Your task to perform on an android device: Check out the best rated 4k TV on Best Buy. Image 0: 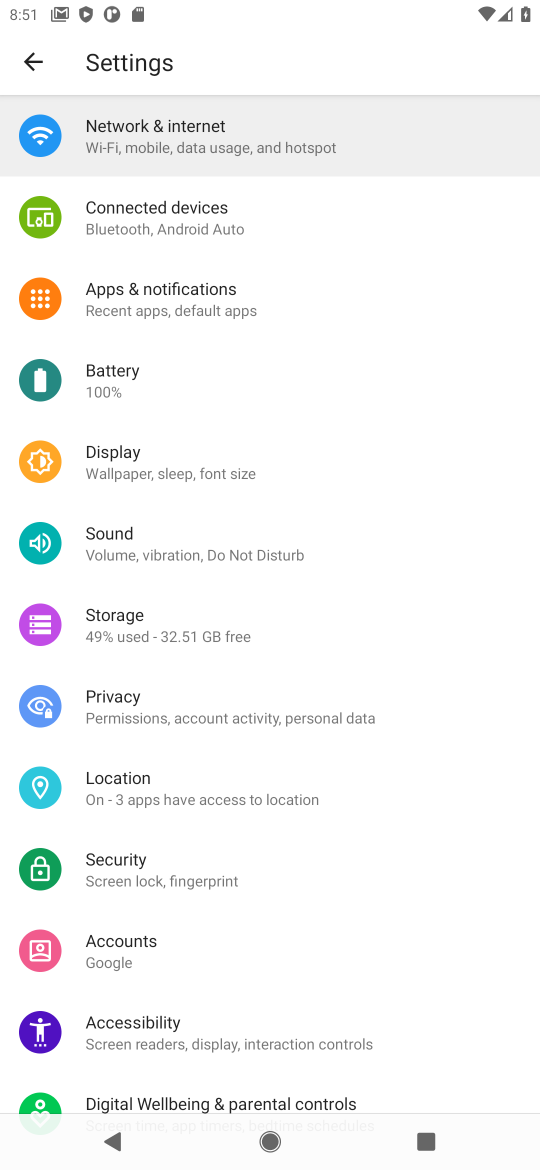
Step 0: press home button
Your task to perform on an android device: Check out the best rated 4k TV on Best Buy. Image 1: 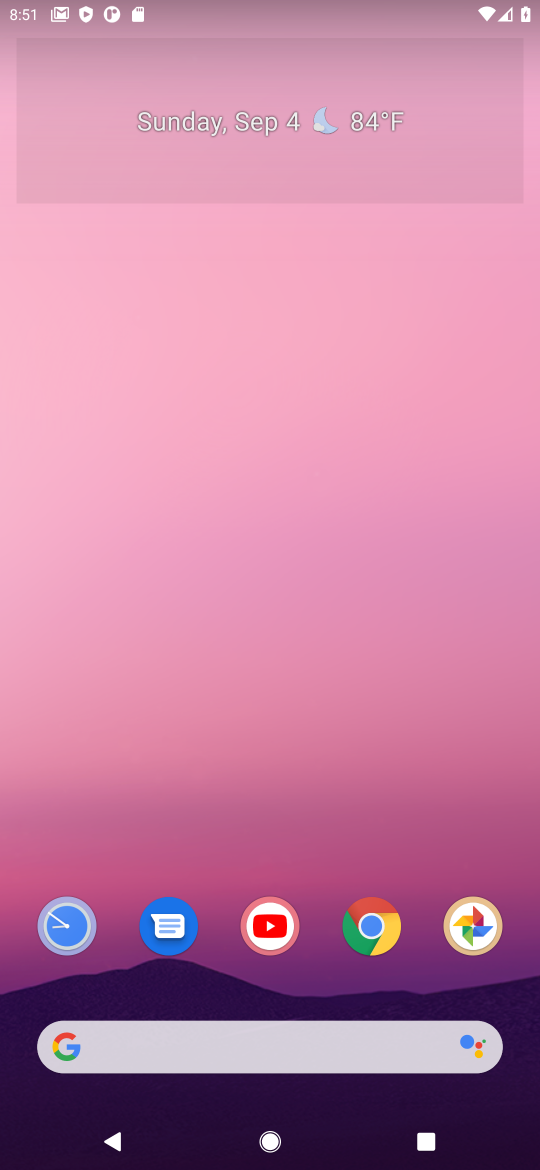
Step 1: click (279, 1041)
Your task to perform on an android device: Check out the best rated 4k TV on Best Buy. Image 2: 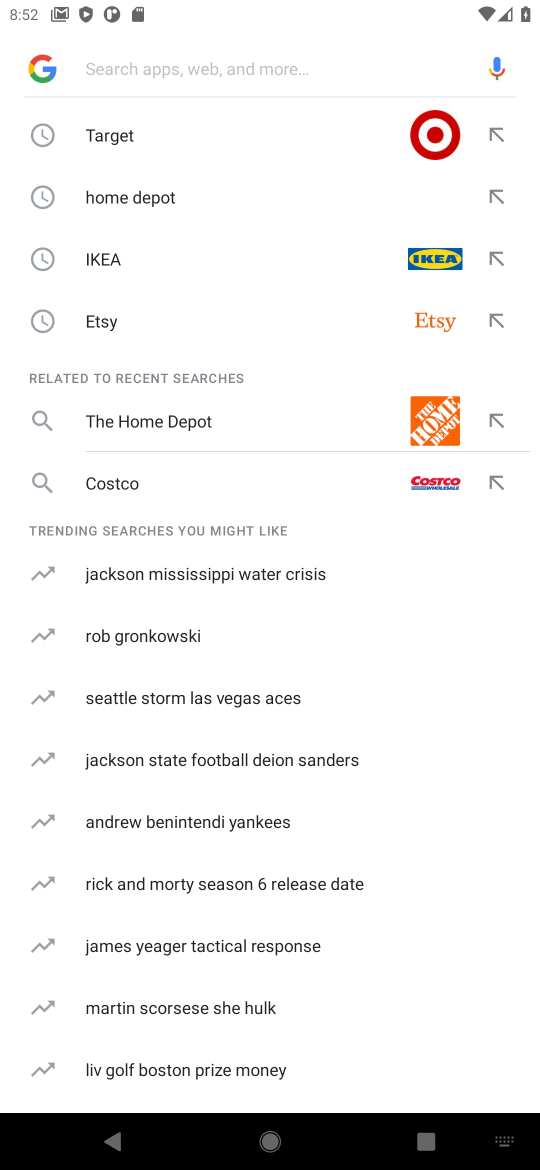
Step 2: type "best buy"
Your task to perform on an android device: Check out the best rated 4k TV on Best Buy. Image 3: 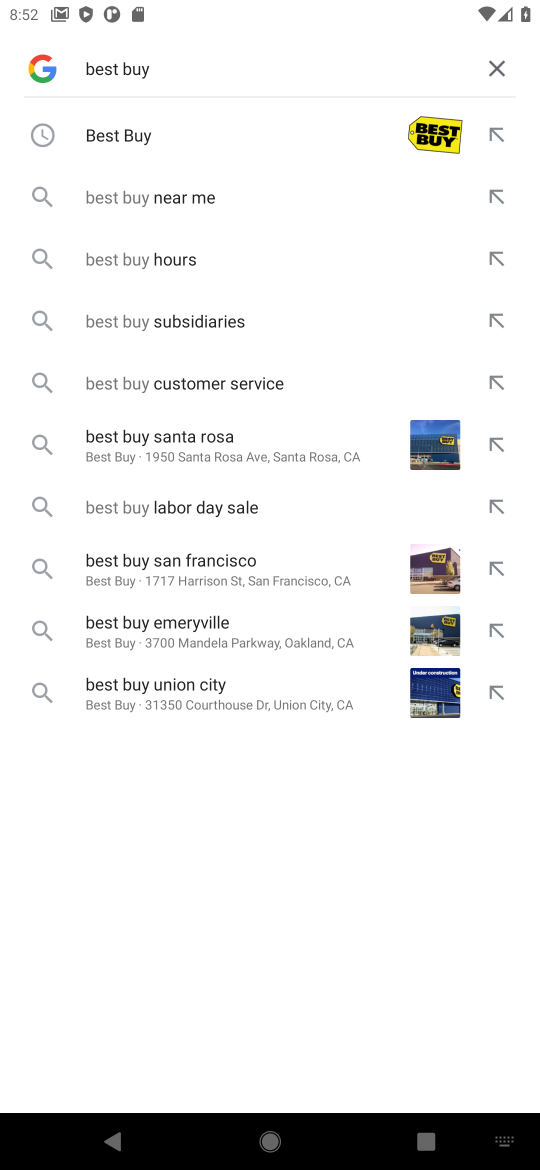
Step 3: click (134, 136)
Your task to perform on an android device: Check out the best rated 4k TV on Best Buy. Image 4: 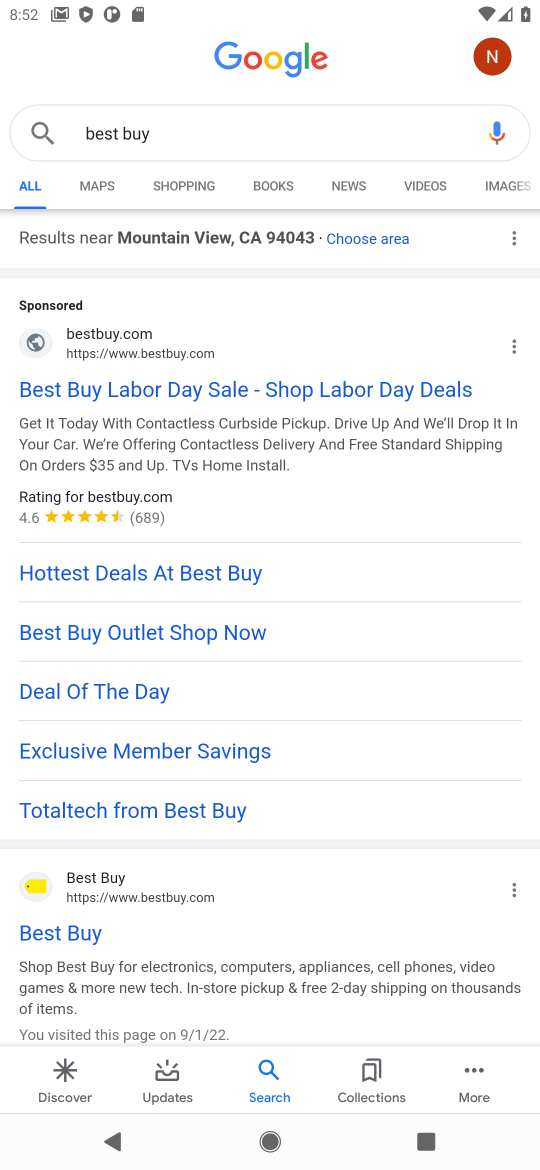
Step 4: click (185, 389)
Your task to perform on an android device: Check out the best rated 4k TV on Best Buy. Image 5: 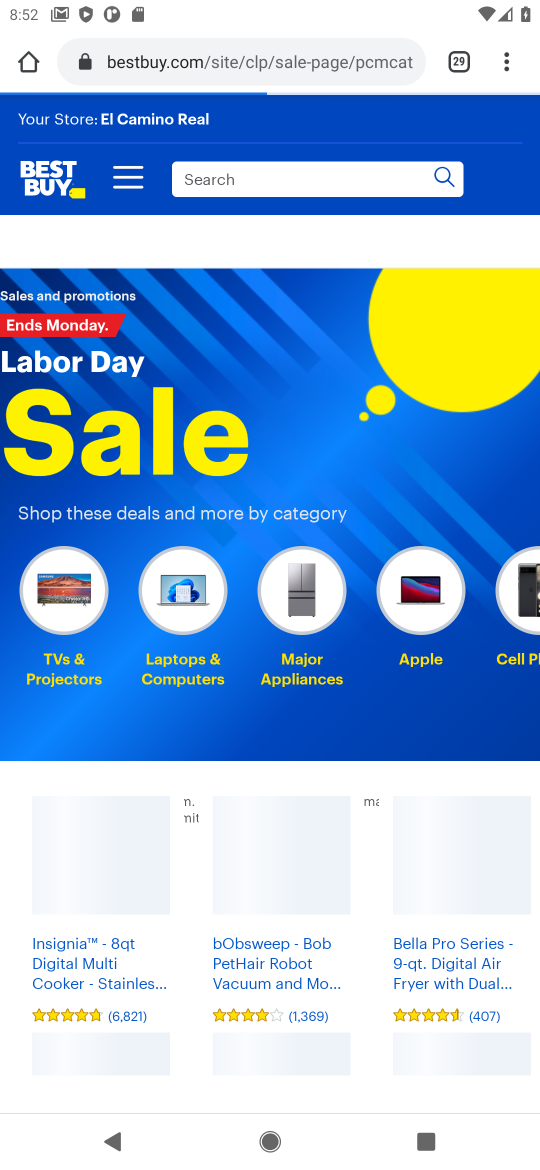
Step 5: click (281, 173)
Your task to perform on an android device: Check out the best rated 4k TV on Best Buy. Image 6: 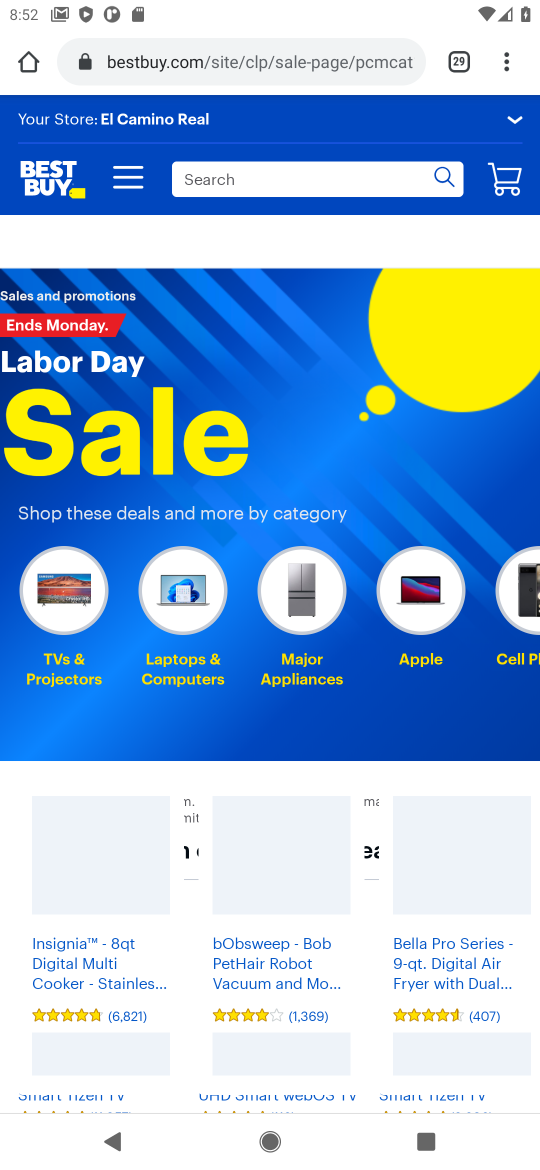
Step 6: click (251, 178)
Your task to perform on an android device: Check out the best rated 4k TV on Best Buy. Image 7: 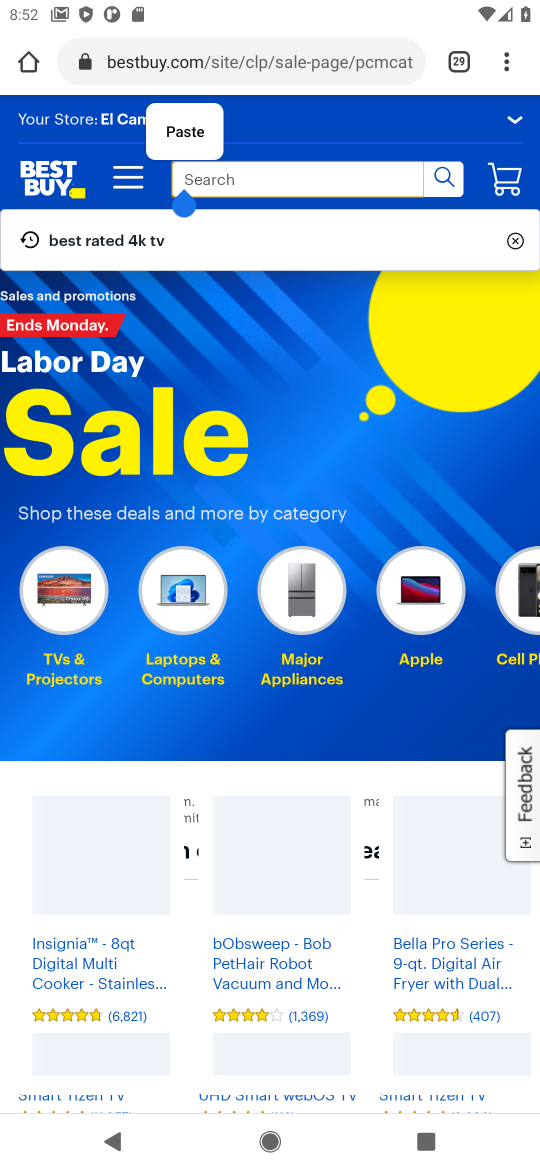
Step 7: type "best rated 4k tv"
Your task to perform on an android device: Check out the best rated 4k TV on Best Buy. Image 8: 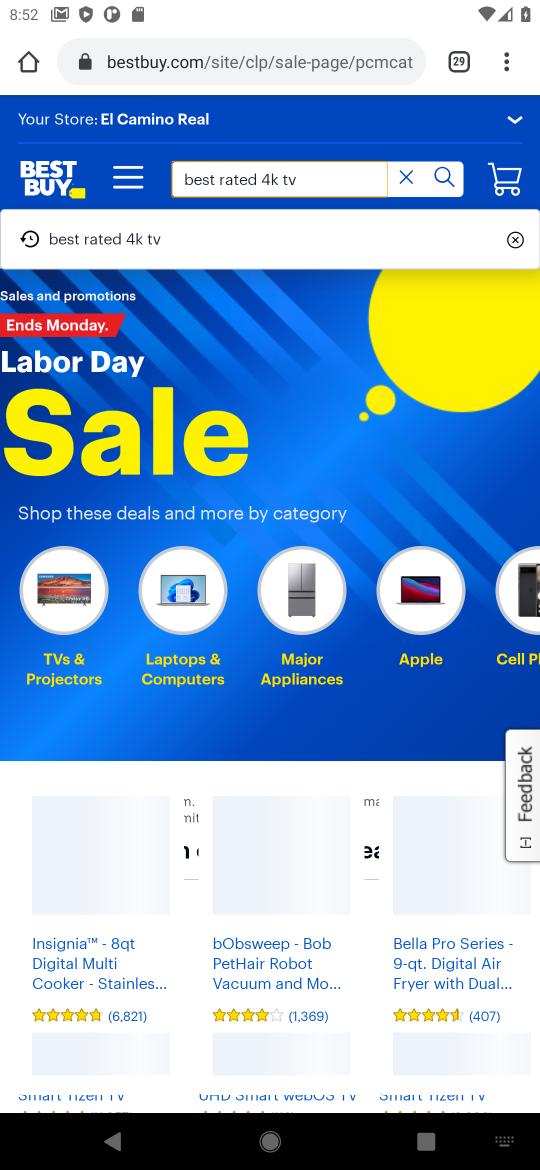
Step 8: click (440, 166)
Your task to perform on an android device: Check out the best rated 4k TV on Best Buy. Image 9: 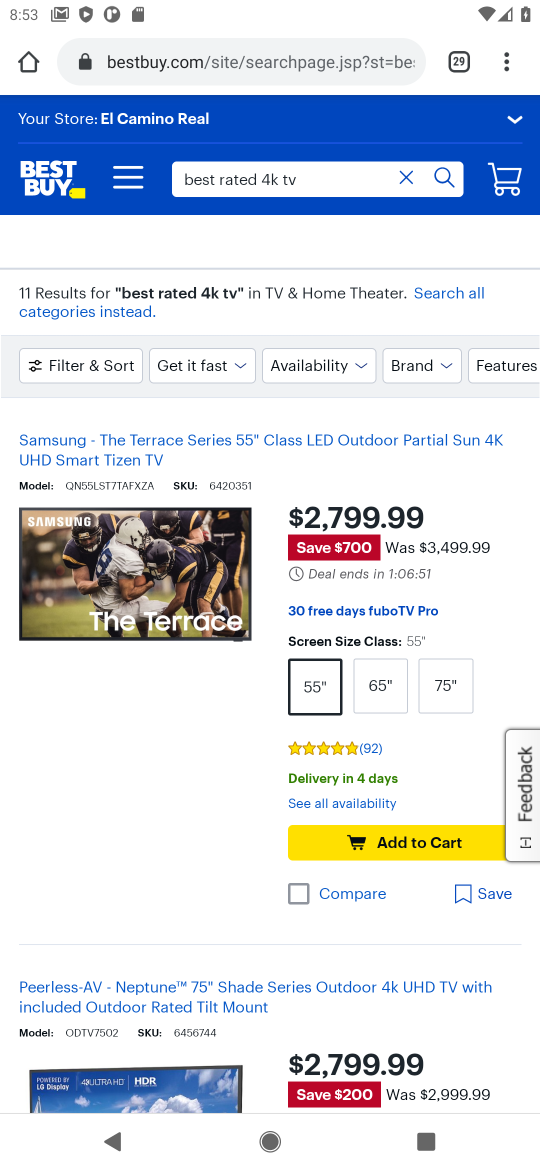
Step 9: drag from (514, 1057) to (499, 695)
Your task to perform on an android device: Check out the best rated 4k TV on Best Buy. Image 10: 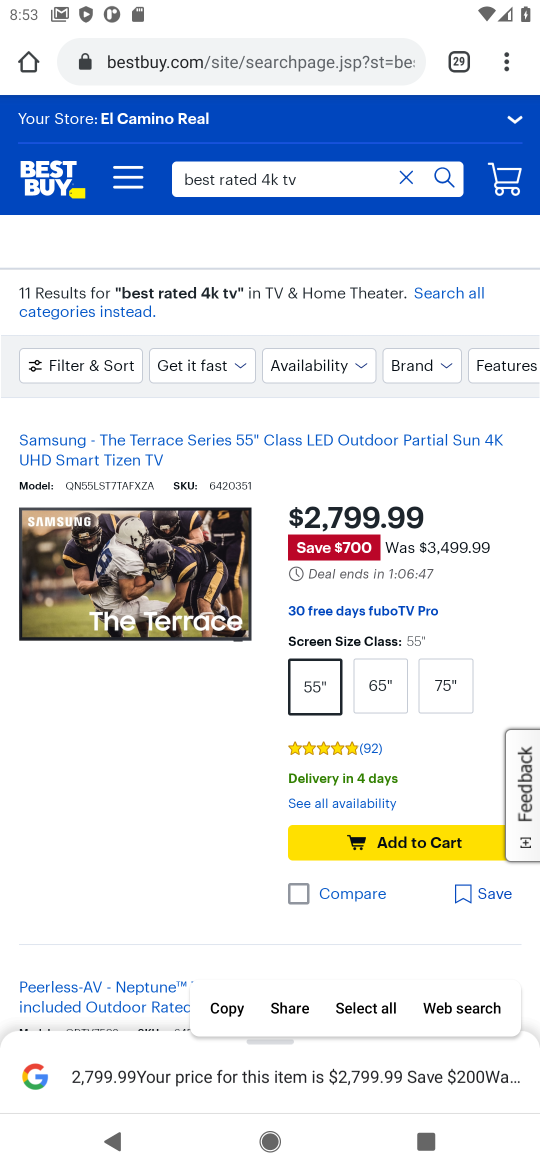
Step 10: click (221, 894)
Your task to perform on an android device: Check out the best rated 4k TV on Best Buy. Image 11: 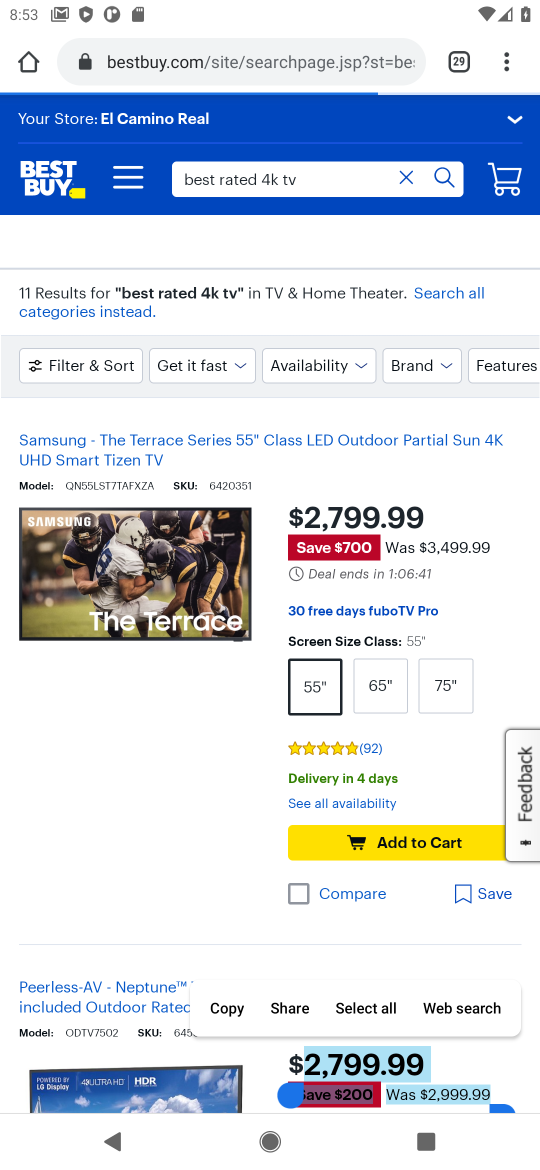
Step 11: task complete